Your task to perform on an android device: add a contact in the contacts app Image 0: 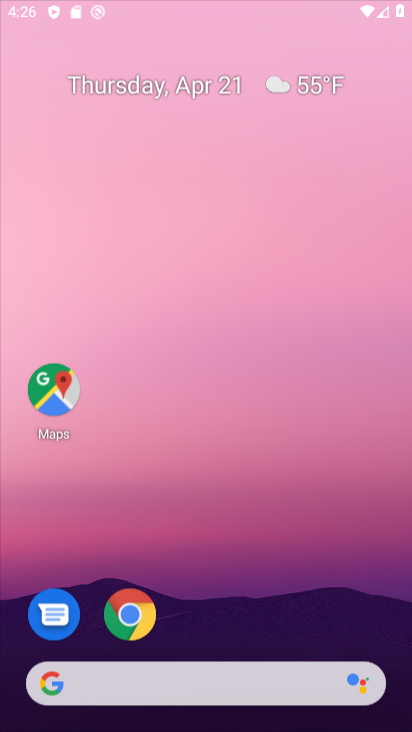
Step 0: drag from (249, 444) to (206, 21)
Your task to perform on an android device: add a contact in the contacts app Image 1: 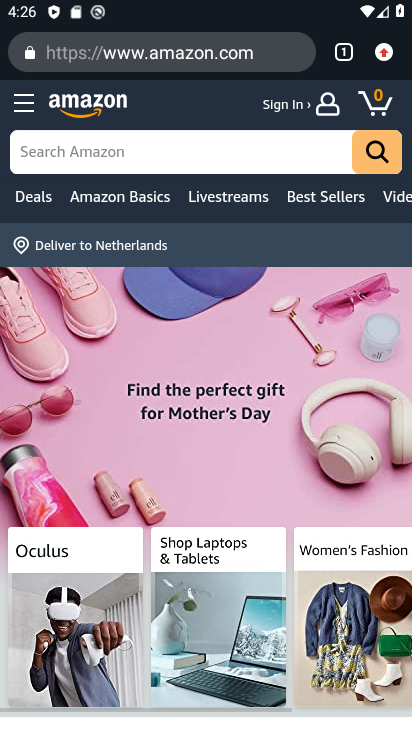
Step 1: press back button
Your task to perform on an android device: add a contact in the contacts app Image 2: 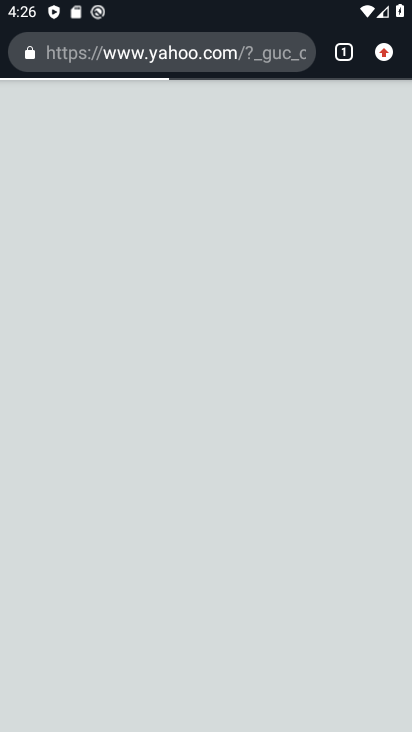
Step 2: press back button
Your task to perform on an android device: add a contact in the contacts app Image 3: 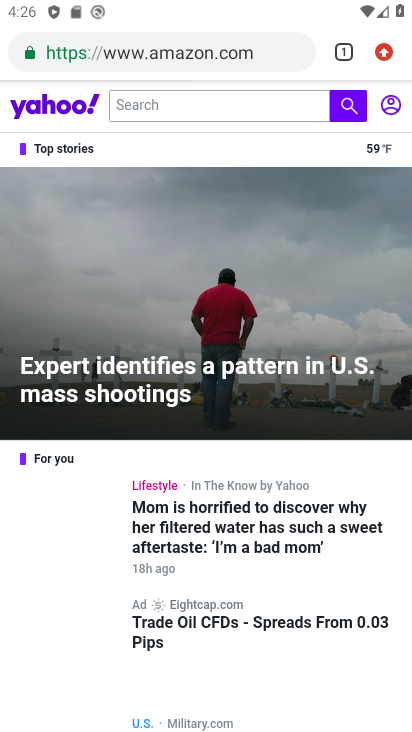
Step 3: press home button
Your task to perform on an android device: add a contact in the contacts app Image 4: 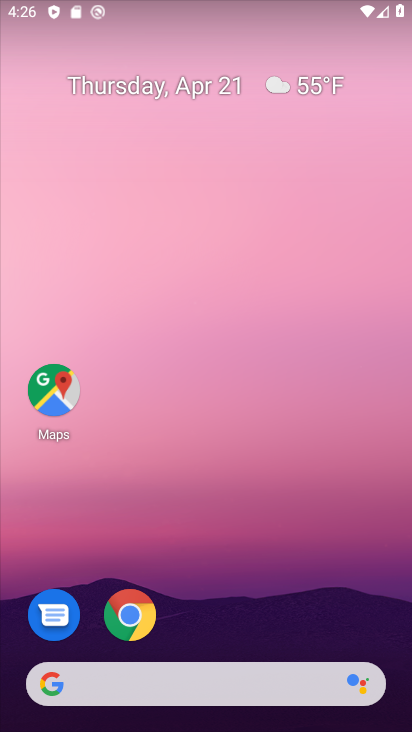
Step 4: drag from (276, 570) to (250, 91)
Your task to perform on an android device: add a contact in the contacts app Image 5: 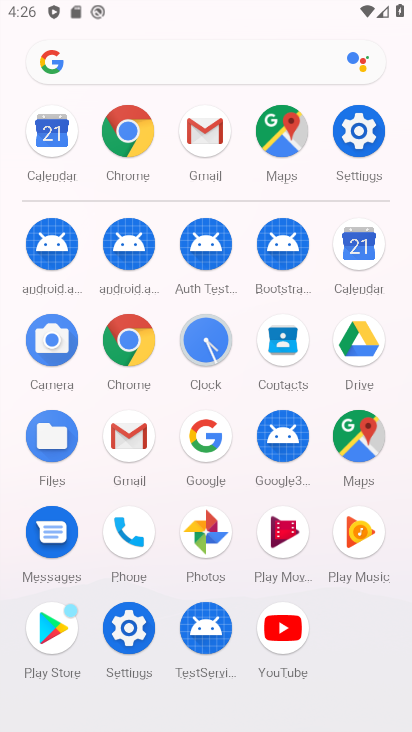
Step 5: click (291, 337)
Your task to perform on an android device: add a contact in the contacts app Image 6: 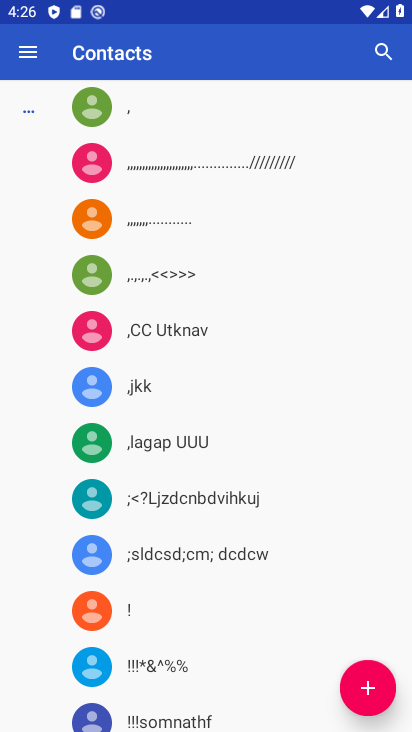
Step 6: click (364, 699)
Your task to perform on an android device: add a contact in the contacts app Image 7: 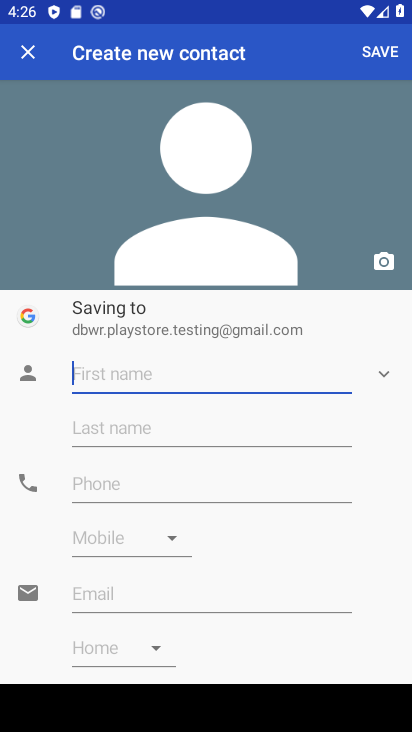
Step 7: type "Mkkjh"
Your task to perform on an android device: add a contact in the contacts app Image 8: 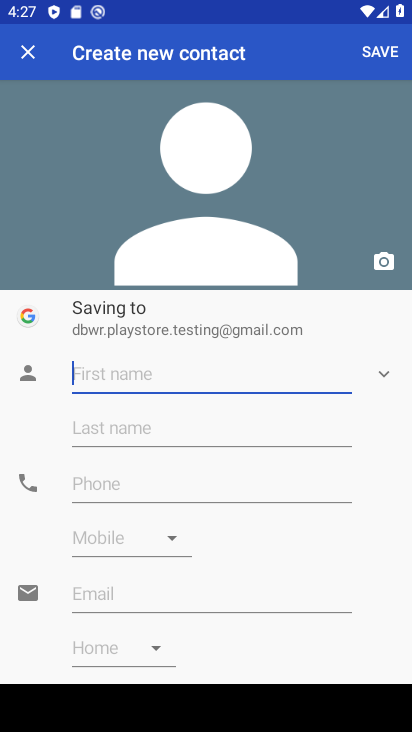
Step 8: click (160, 477)
Your task to perform on an android device: add a contact in the contacts app Image 9: 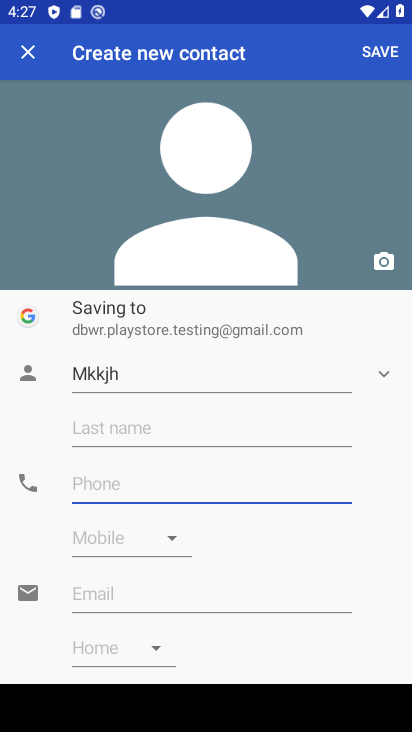
Step 9: type "4657575365677"
Your task to perform on an android device: add a contact in the contacts app Image 10: 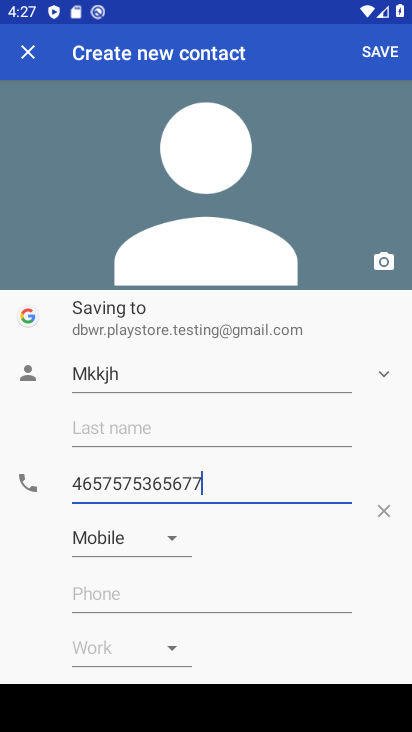
Step 10: type ""
Your task to perform on an android device: add a contact in the contacts app Image 11: 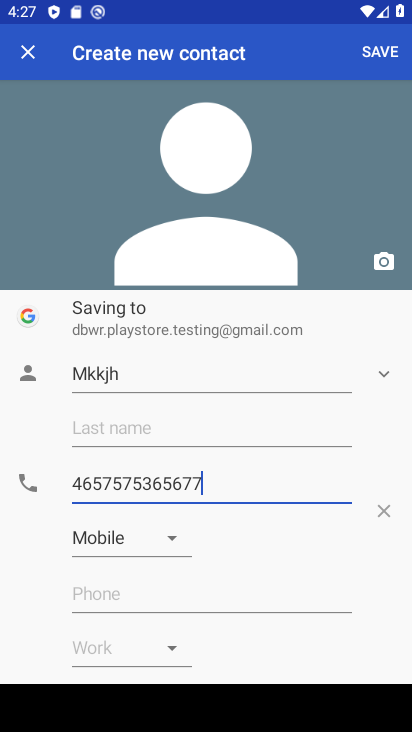
Step 11: click (383, 54)
Your task to perform on an android device: add a contact in the contacts app Image 12: 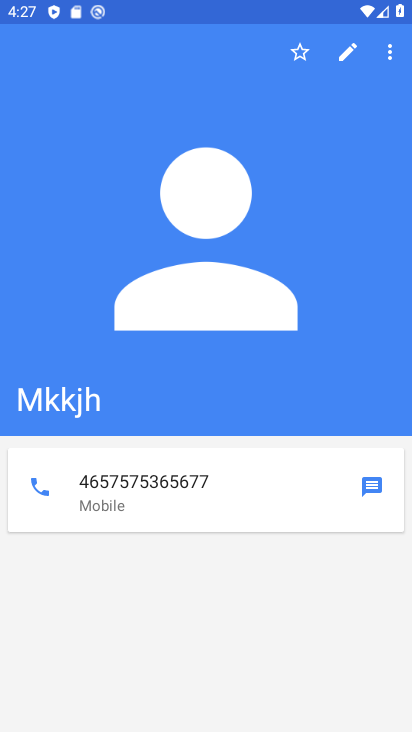
Step 12: task complete